Your task to perform on an android device: check google app version Image 0: 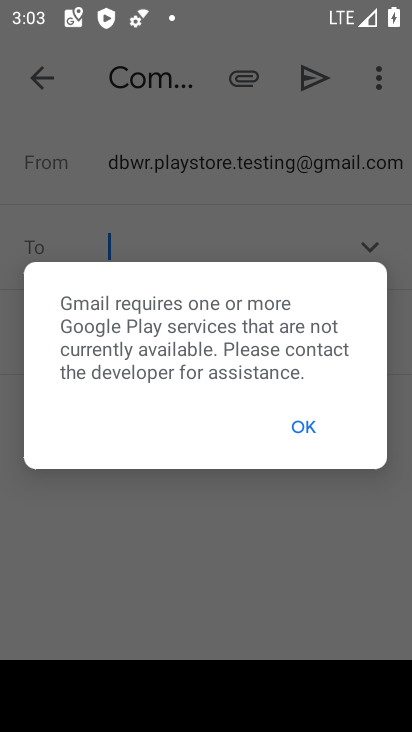
Step 0: press back button
Your task to perform on an android device: check google app version Image 1: 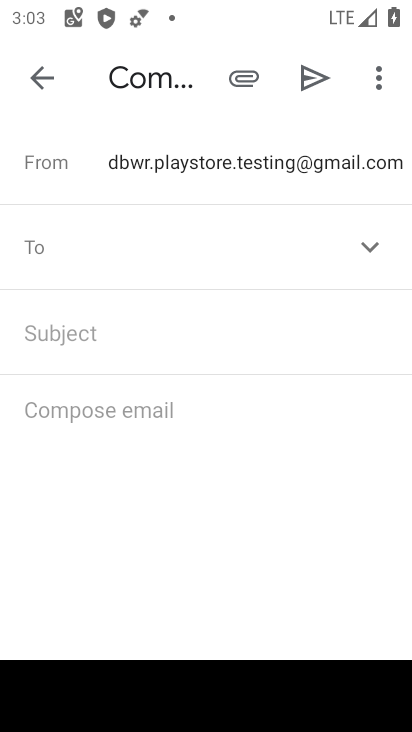
Step 1: press back button
Your task to perform on an android device: check google app version Image 2: 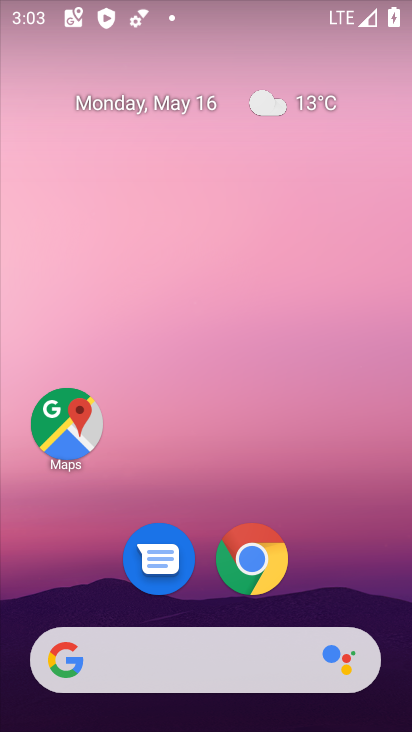
Step 2: drag from (186, 555) to (245, 124)
Your task to perform on an android device: check google app version Image 3: 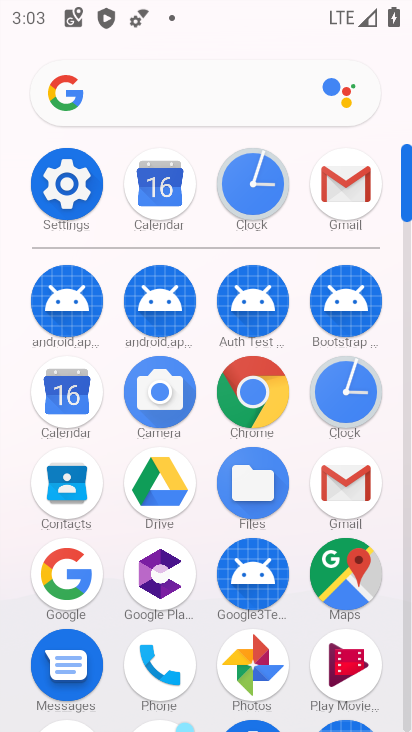
Step 3: click (82, 577)
Your task to perform on an android device: check google app version Image 4: 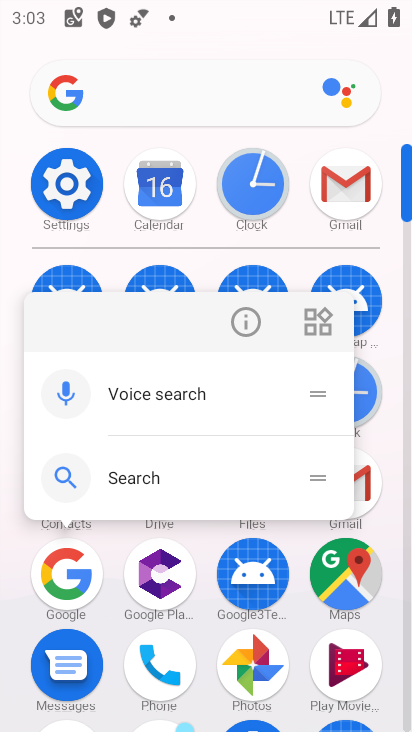
Step 4: click (241, 314)
Your task to perform on an android device: check google app version Image 5: 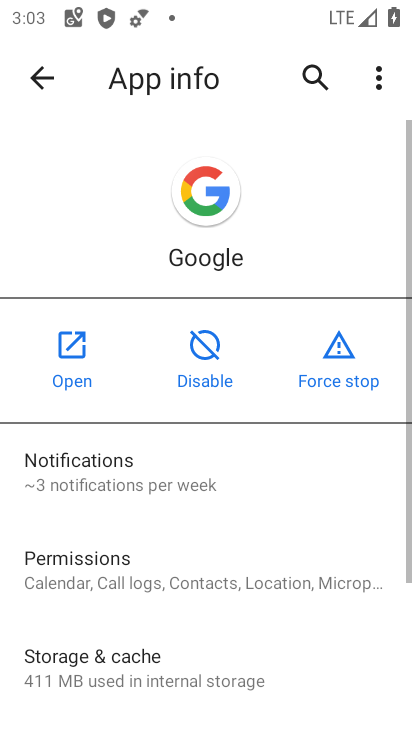
Step 5: drag from (150, 616) to (228, 80)
Your task to perform on an android device: check google app version Image 6: 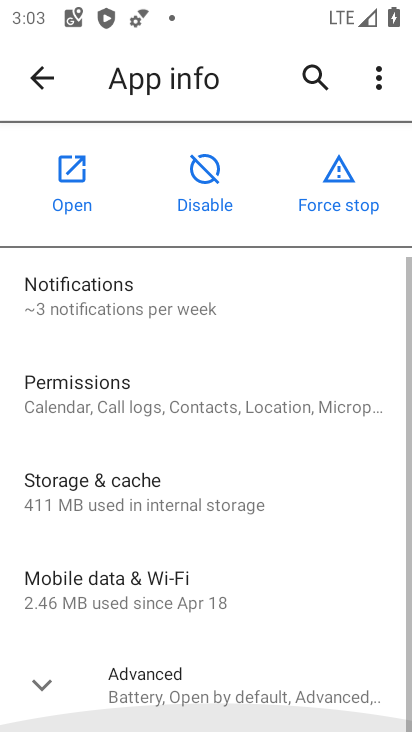
Step 6: drag from (112, 627) to (177, 115)
Your task to perform on an android device: check google app version Image 7: 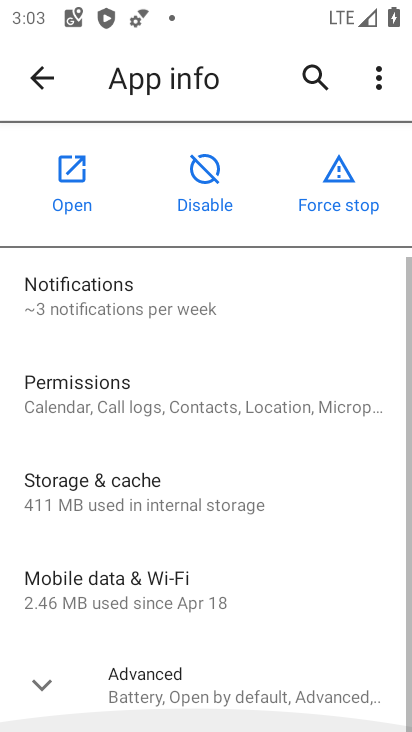
Step 7: click (166, 686)
Your task to perform on an android device: check google app version Image 8: 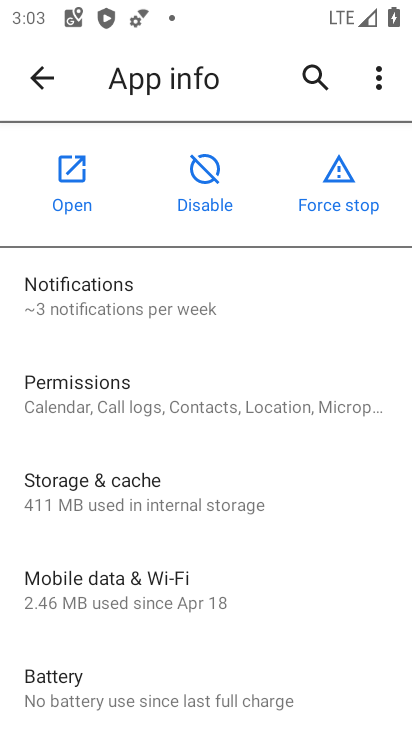
Step 8: task complete